Your task to perform on an android device: Go to Amazon Image 0: 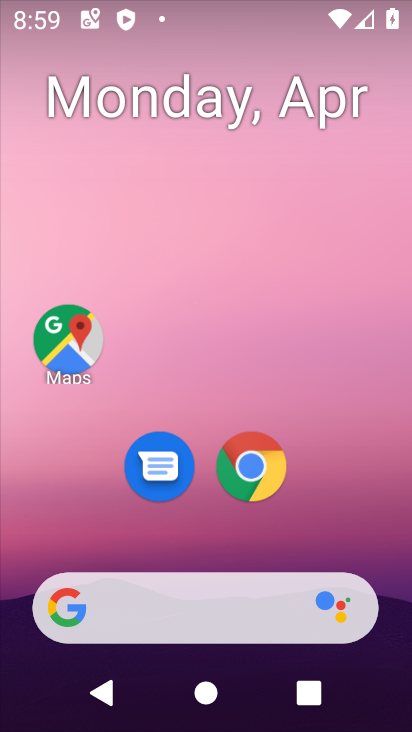
Step 0: click (263, 487)
Your task to perform on an android device: Go to Amazon Image 1: 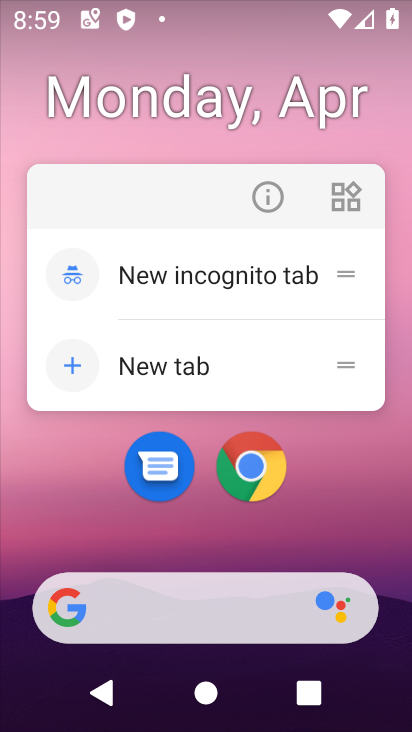
Step 1: click (263, 487)
Your task to perform on an android device: Go to Amazon Image 2: 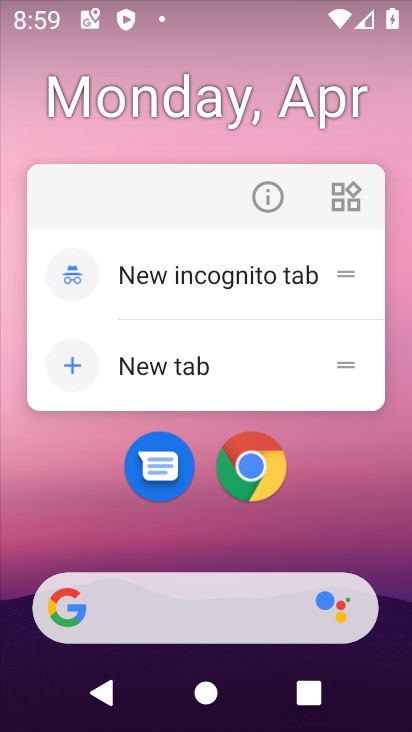
Step 2: click (263, 487)
Your task to perform on an android device: Go to Amazon Image 3: 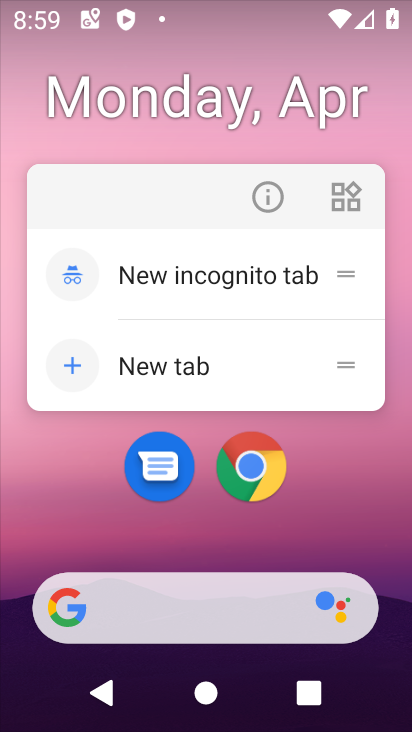
Step 3: click (251, 493)
Your task to perform on an android device: Go to Amazon Image 4: 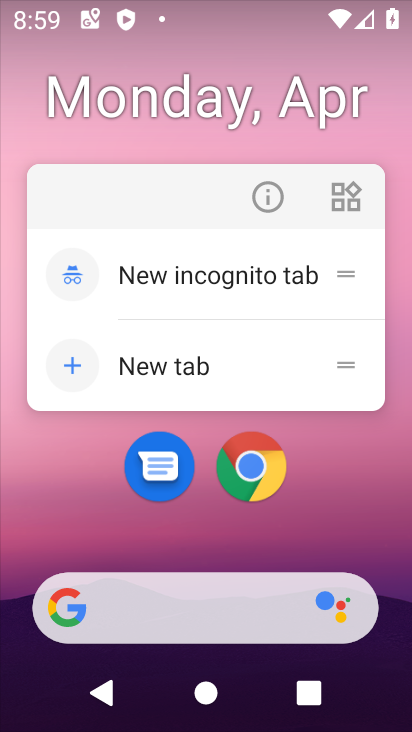
Step 4: click (249, 457)
Your task to perform on an android device: Go to Amazon Image 5: 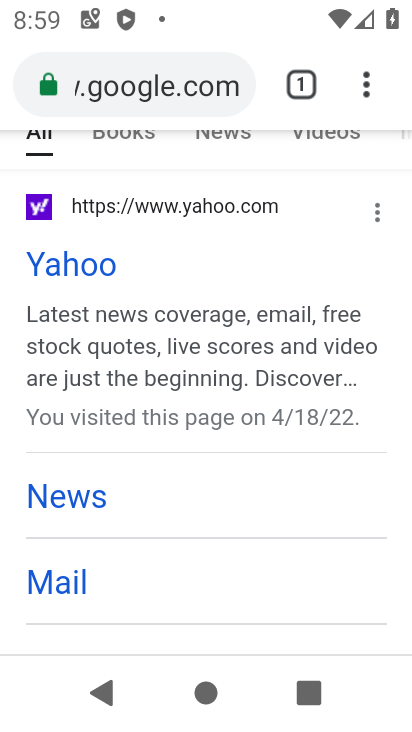
Step 5: click (234, 98)
Your task to perform on an android device: Go to Amazon Image 6: 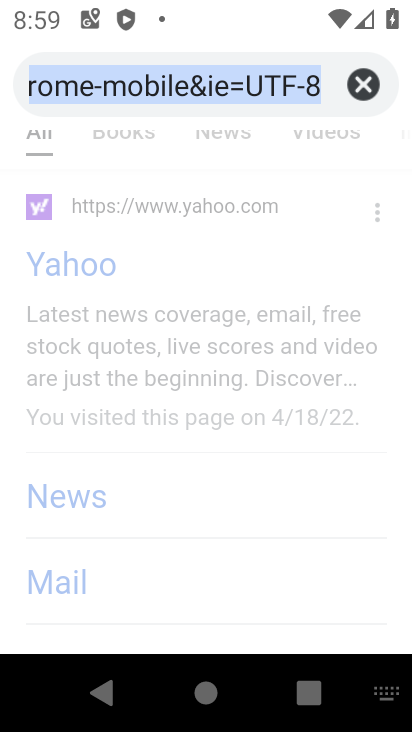
Step 6: click (357, 85)
Your task to perform on an android device: Go to Amazon Image 7: 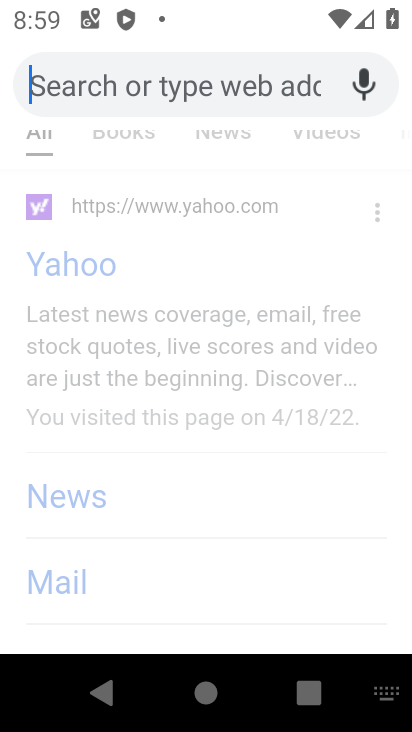
Step 7: click (264, 83)
Your task to perform on an android device: Go to Amazon Image 8: 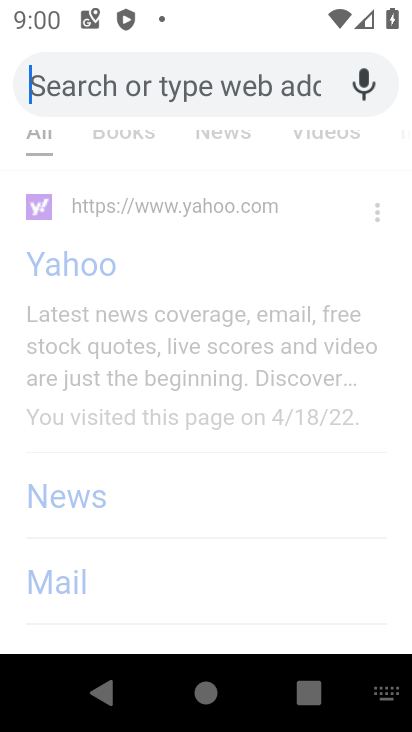
Step 8: type "Amazon"
Your task to perform on an android device: Go to Amazon Image 9: 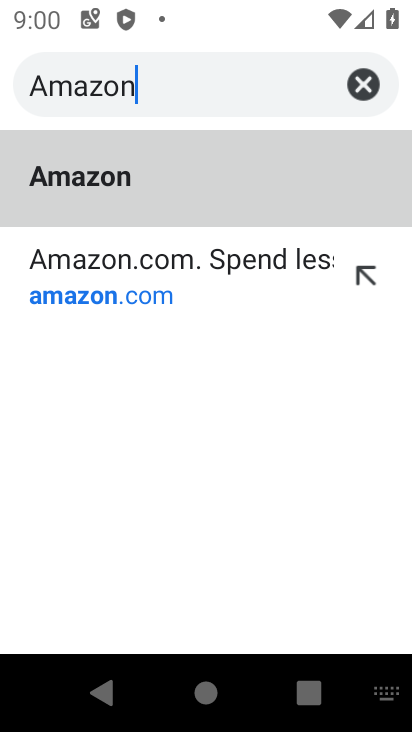
Step 9: type ""
Your task to perform on an android device: Go to Amazon Image 10: 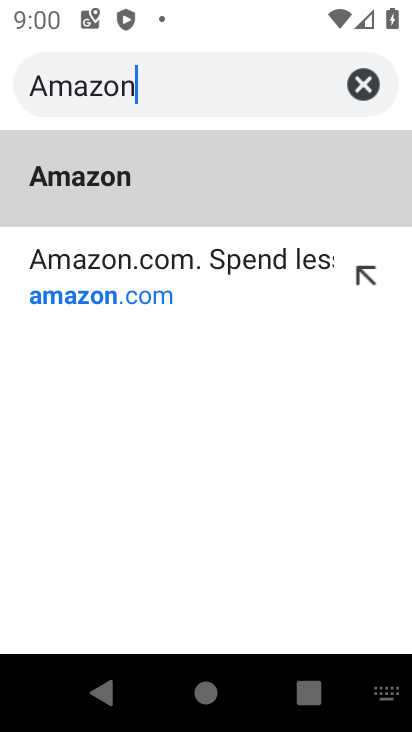
Step 10: click (133, 163)
Your task to perform on an android device: Go to Amazon Image 11: 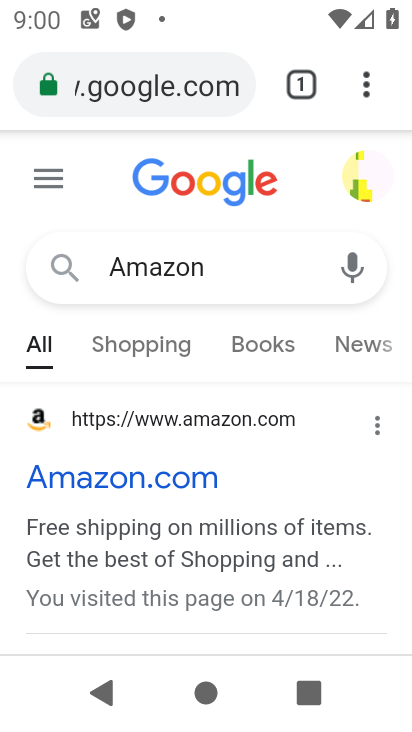
Step 11: task complete